Your task to perform on an android device: toggle notifications settings in the gmail app Image 0: 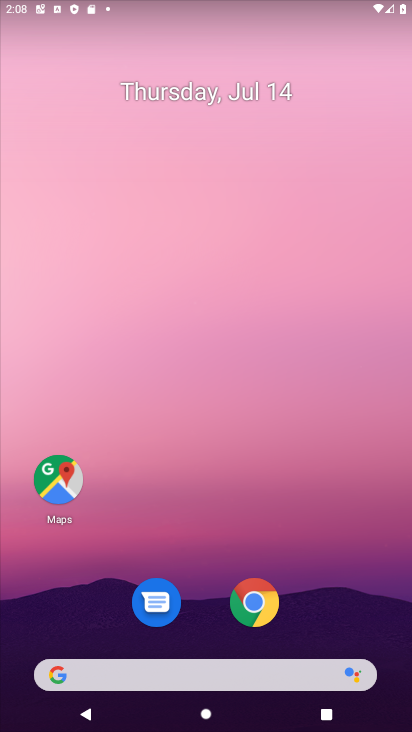
Step 0: drag from (381, 622) to (359, 156)
Your task to perform on an android device: toggle notifications settings in the gmail app Image 1: 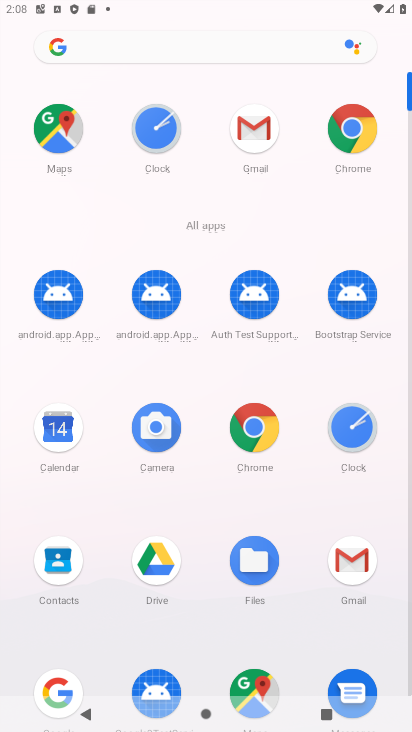
Step 1: click (353, 559)
Your task to perform on an android device: toggle notifications settings in the gmail app Image 2: 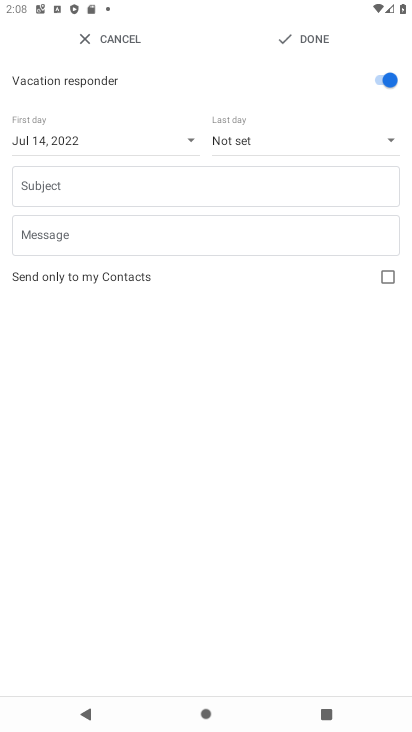
Step 2: press back button
Your task to perform on an android device: toggle notifications settings in the gmail app Image 3: 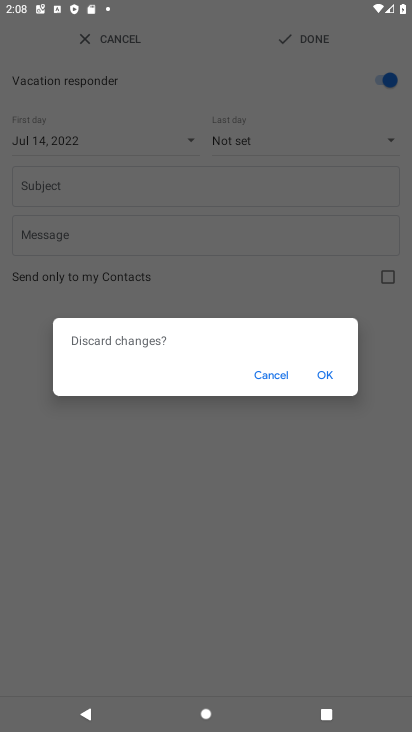
Step 3: click (325, 372)
Your task to perform on an android device: toggle notifications settings in the gmail app Image 4: 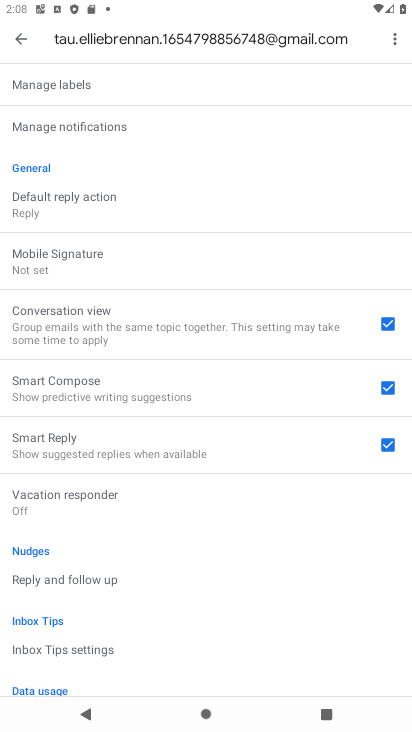
Step 4: drag from (203, 215) to (183, 429)
Your task to perform on an android device: toggle notifications settings in the gmail app Image 5: 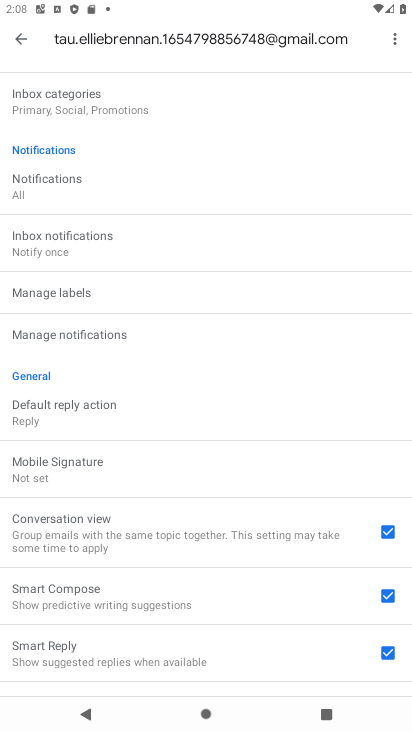
Step 5: click (46, 330)
Your task to perform on an android device: toggle notifications settings in the gmail app Image 6: 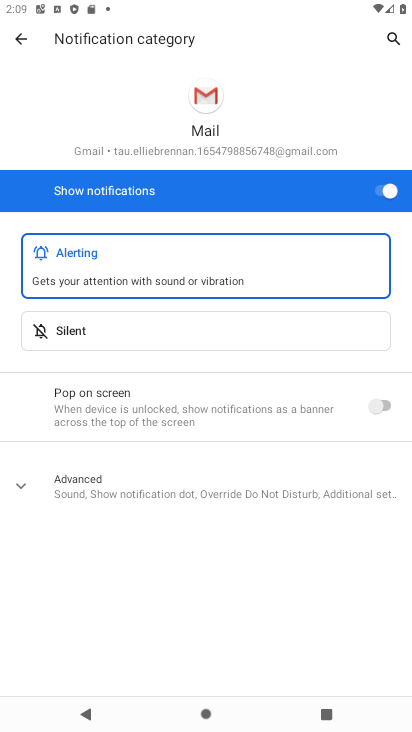
Step 6: click (377, 195)
Your task to perform on an android device: toggle notifications settings in the gmail app Image 7: 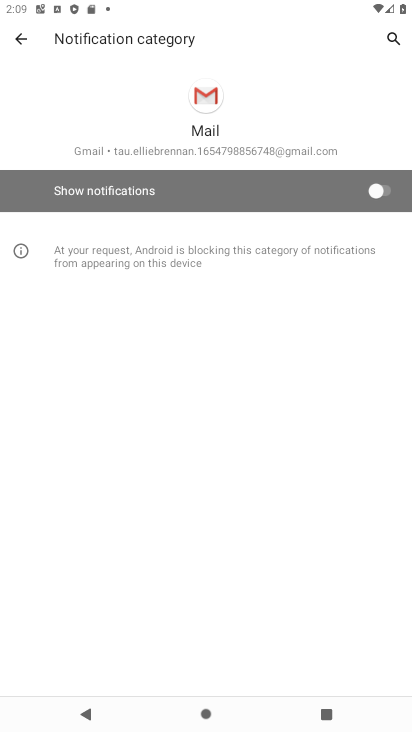
Step 7: task complete